Your task to perform on an android device: Turn off the flashlight Image 0: 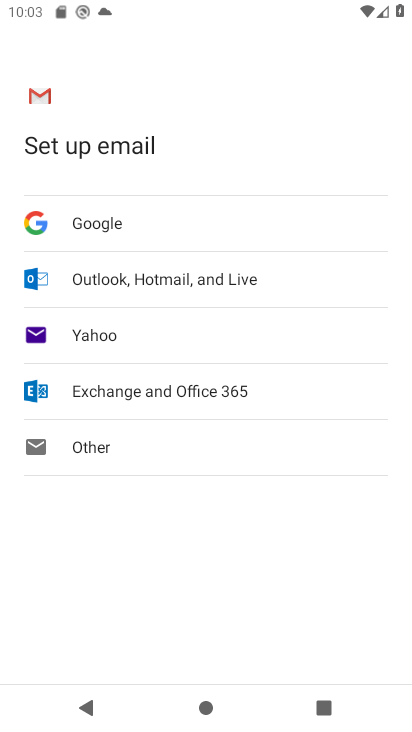
Step 0: press home button
Your task to perform on an android device: Turn off the flashlight Image 1: 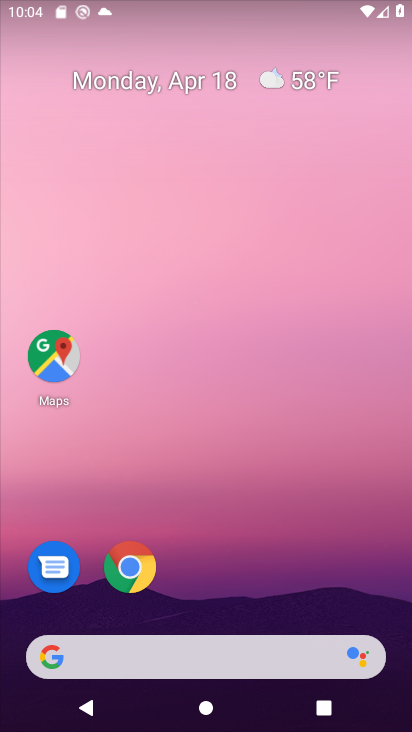
Step 1: click (347, 201)
Your task to perform on an android device: Turn off the flashlight Image 2: 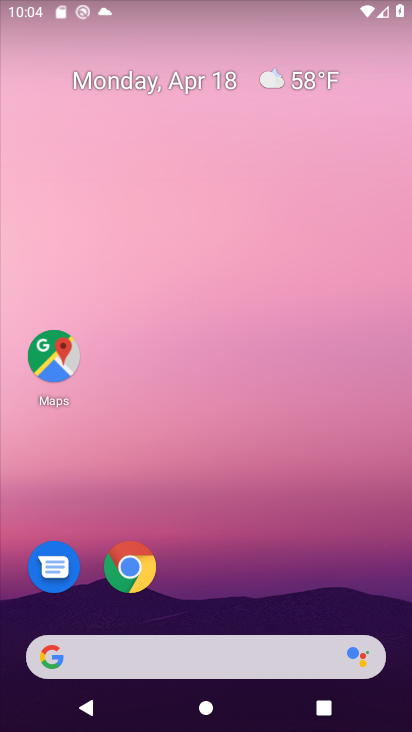
Step 2: drag from (184, 564) to (248, 113)
Your task to perform on an android device: Turn off the flashlight Image 3: 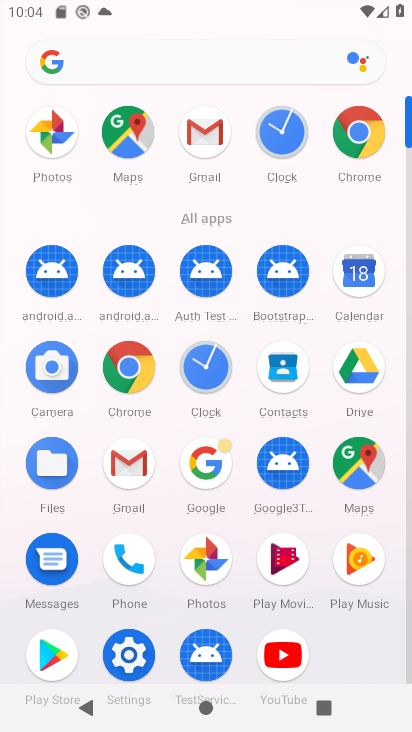
Step 3: click (272, 29)
Your task to perform on an android device: Turn off the flashlight Image 4: 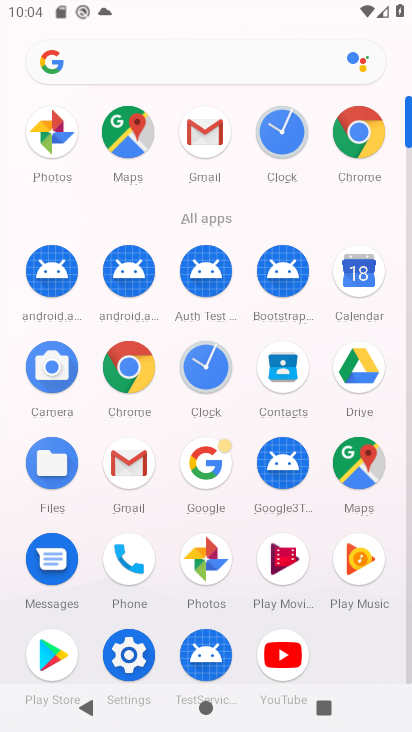
Step 4: click (229, 64)
Your task to perform on an android device: Turn off the flashlight Image 5: 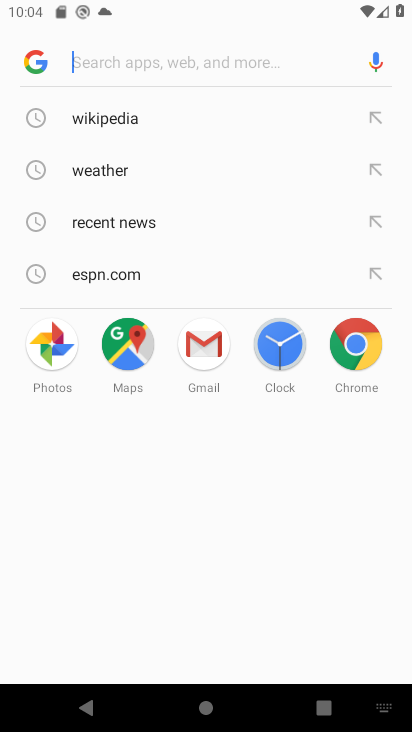
Step 5: click (220, 168)
Your task to perform on an android device: Turn off the flashlight Image 6: 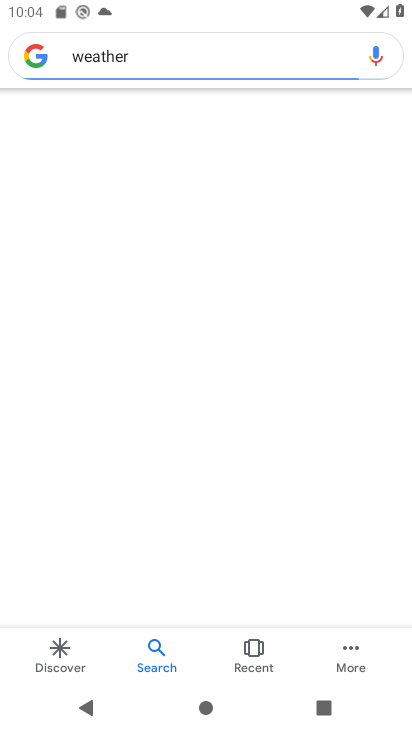
Step 6: drag from (213, 611) to (276, 167)
Your task to perform on an android device: Turn off the flashlight Image 7: 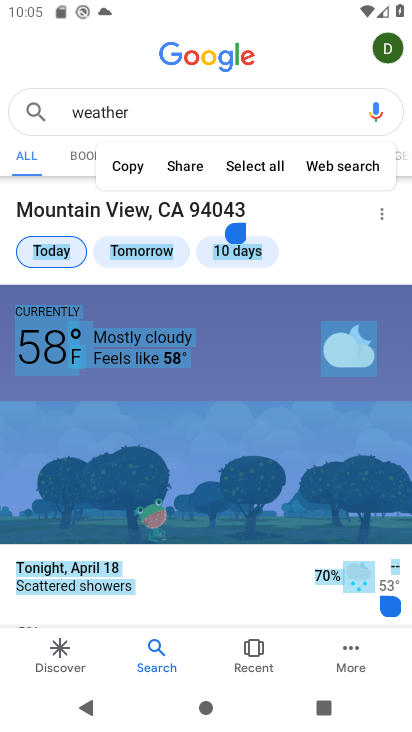
Step 7: click (177, 192)
Your task to perform on an android device: Turn off the flashlight Image 8: 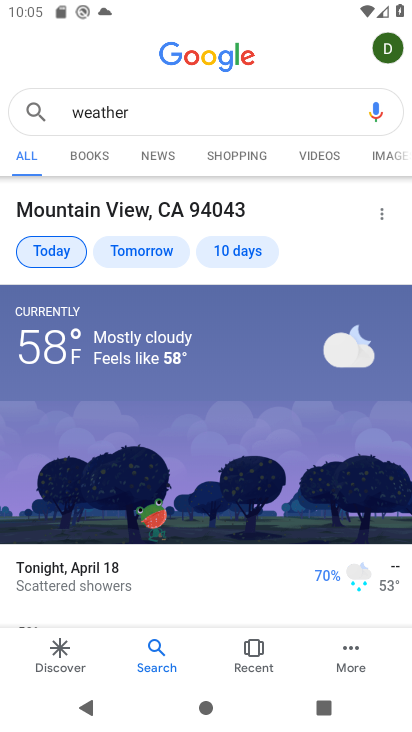
Step 8: type "flashlight"
Your task to perform on an android device: Turn off the flashlight Image 9: 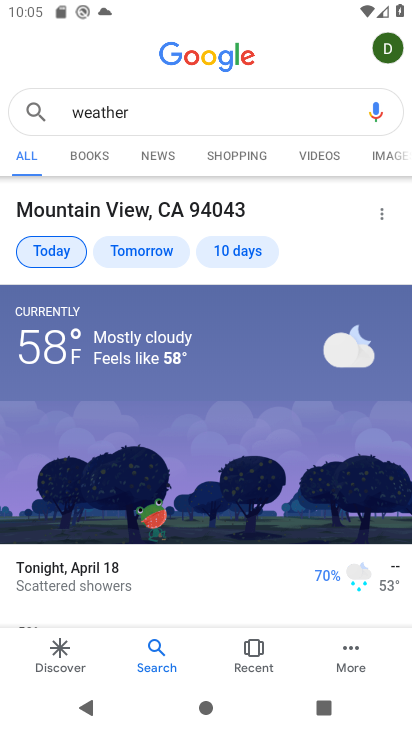
Step 9: click (119, 62)
Your task to perform on an android device: Turn off the flashlight Image 10: 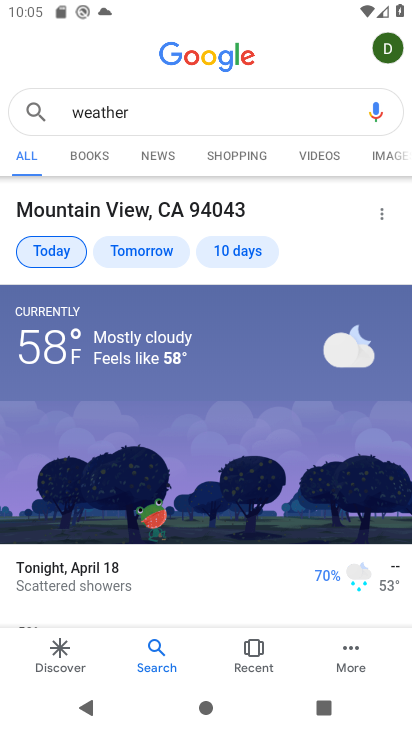
Step 10: press home button
Your task to perform on an android device: Turn off the flashlight Image 11: 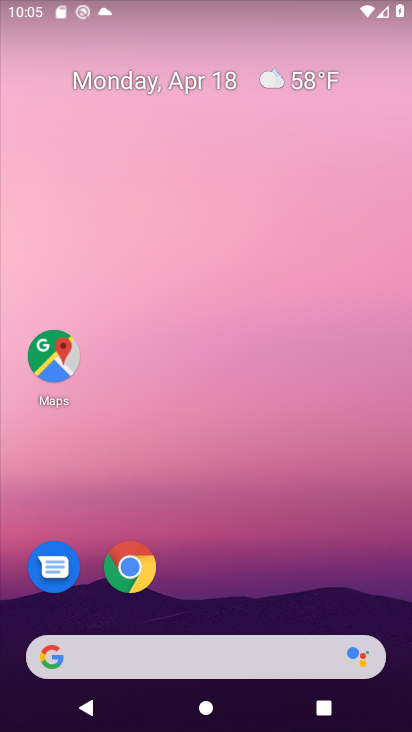
Step 11: drag from (225, 508) to (287, 2)
Your task to perform on an android device: Turn off the flashlight Image 12: 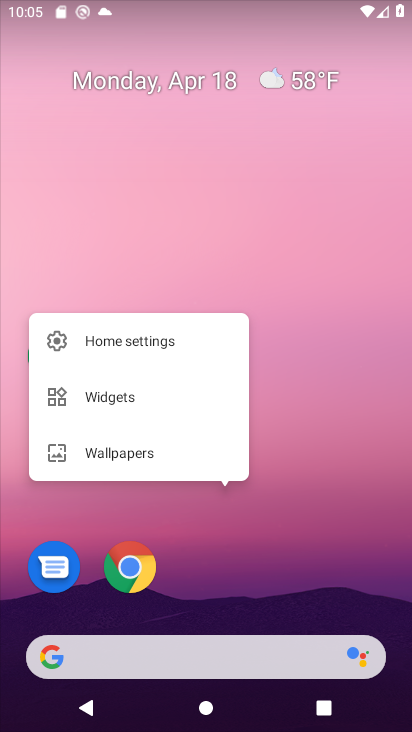
Step 12: click (199, 1)
Your task to perform on an android device: Turn off the flashlight Image 13: 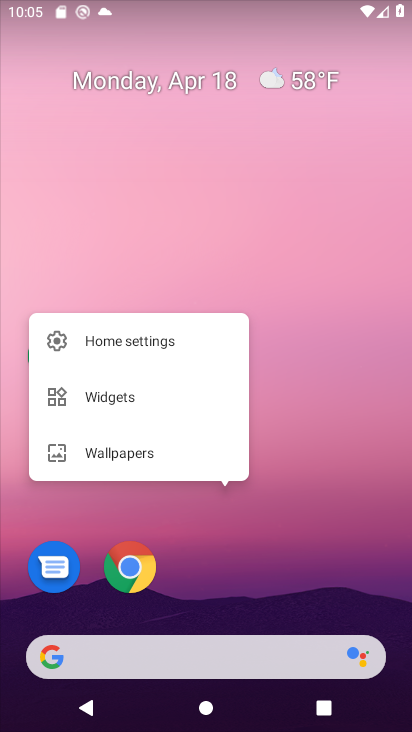
Step 13: click (262, 167)
Your task to perform on an android device: Turn off the flashlight Image 14: 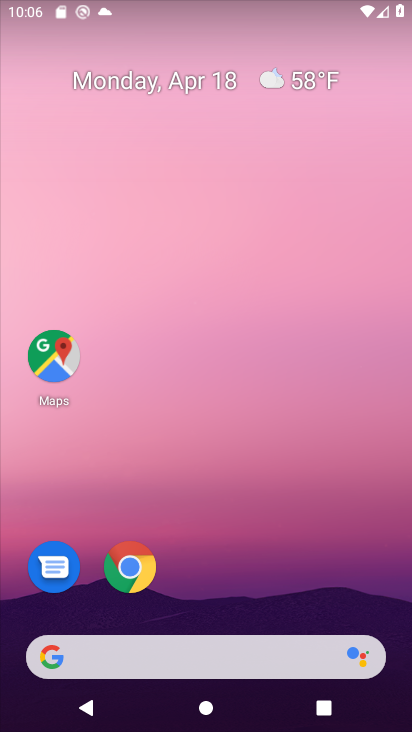
Step 14: drag from (200, 628) to (212, 1)
Your task to perform on an android device: Turn off the flashlight Image 15: 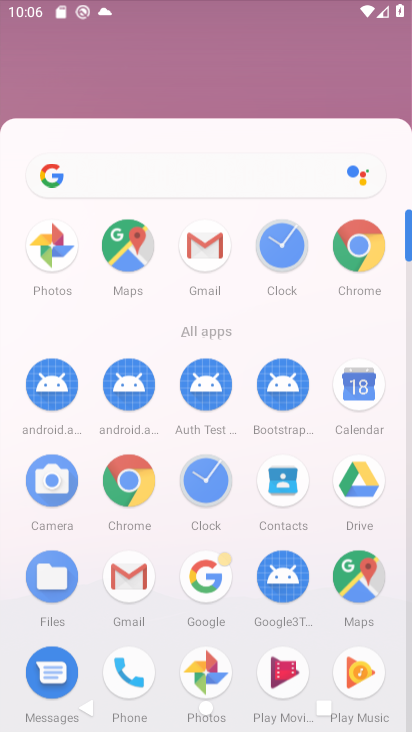
Step 15: drag from (199, 612) to (242, 84)
Your task to perform on an android device: Turn off the flashlight Image 16: 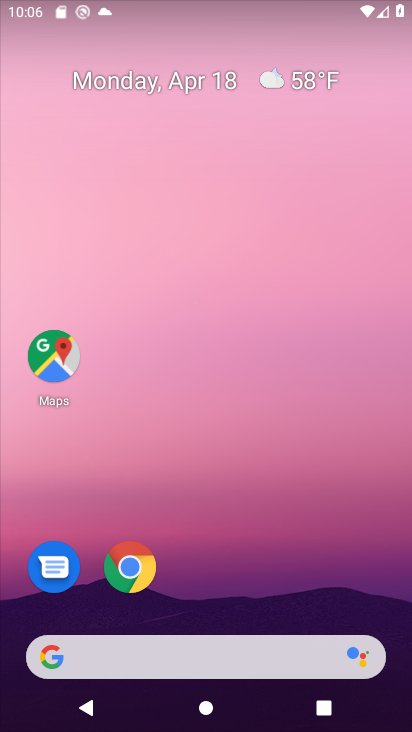
Step 16: drag from (208, 600) to (263, 74)
Your task to perform on an android device: Turn off the flashlight Image 17: 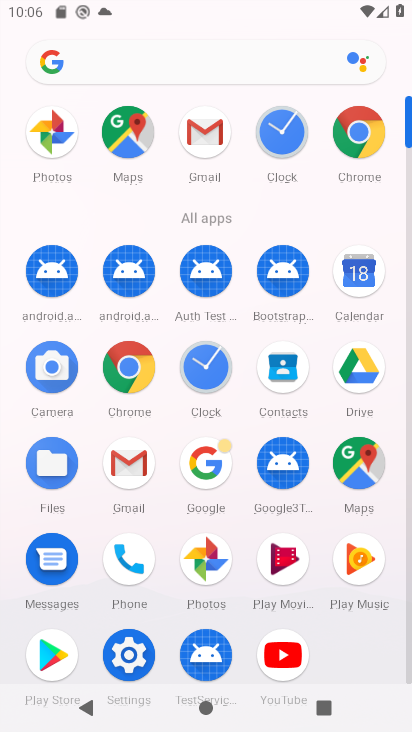
Step 17: drag from (251, 584) to (281, 195)
Your task to perform on an android device: Turn off the flashlight Image 18: 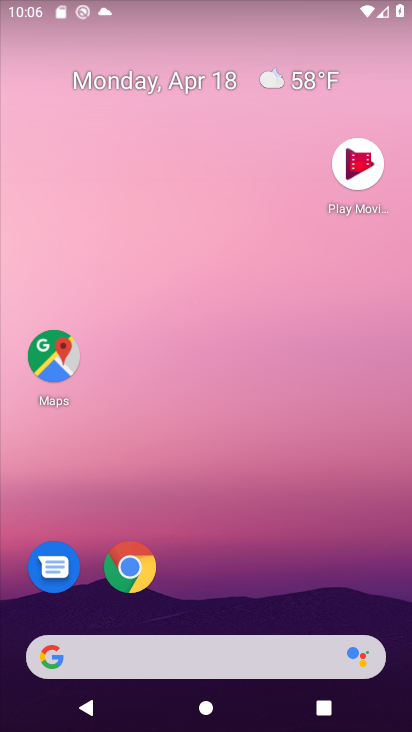
Step 18: drag from (256, 590) to (273, 172)
Your task to perform on an android device: Turn off the flashlight Image 19: 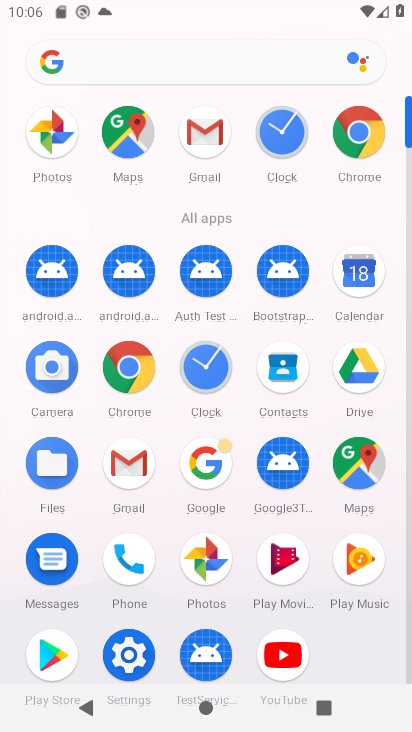
Step 19: drag from (241, 441) to (244, 163)
Your task to perform on an android device: Turn off the flashlight Image 20: 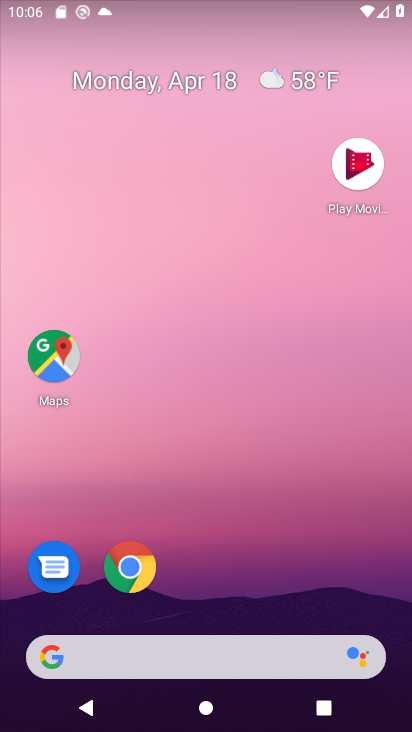
Step 20: drag from (195, 502) to (225, 194)
Your task to perform on an android device: Turn off the flashlight Image 21: 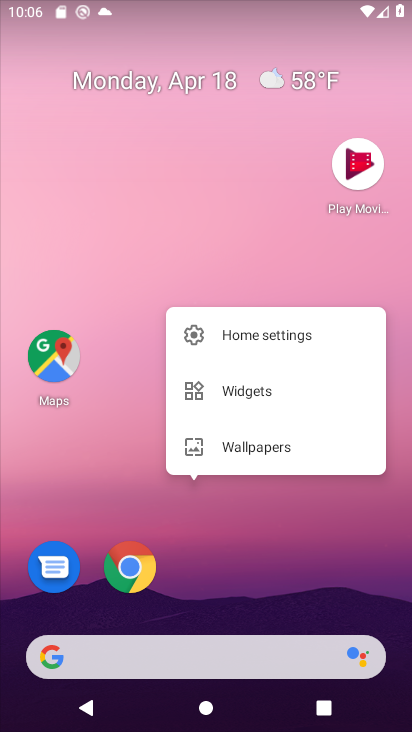
Step 21: drag from (172, 600) to (163, 112)
Your task to perform on an android device: Turn off the flashlight Image 22: 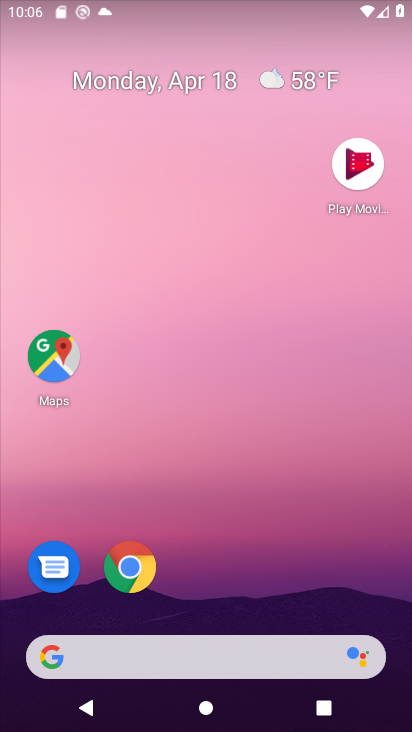
Step 22: drag from (186, 610) to (238, 109)
Your task to perform on an android device: Turn off the flashlight Image 23: 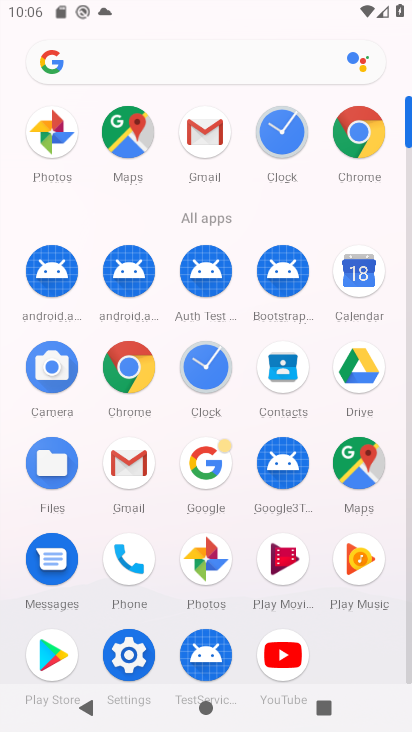
Step 23: click (247, 67)
Your task to perform on an android device: Turn off the flashlight Image 24: 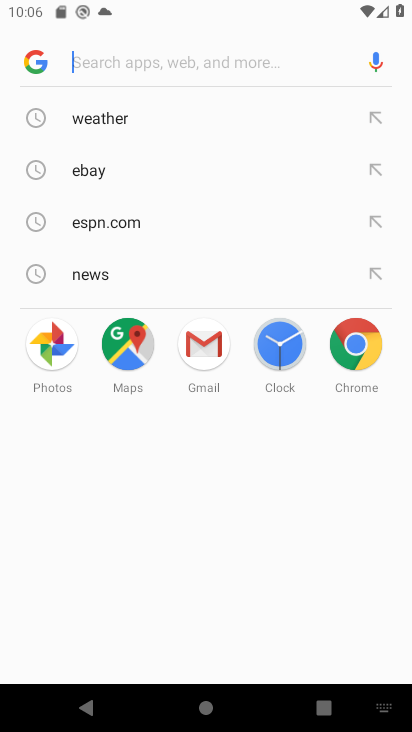
Step 24: click (293, 57)
Your task to perform on an android device: Turn off the flashlight Image 25: 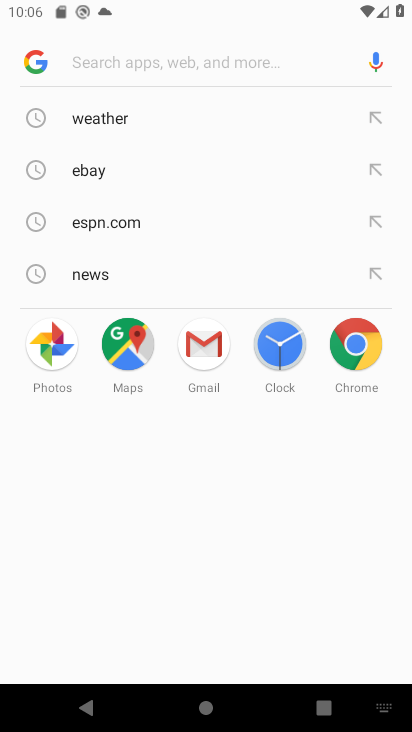
Step 25: click (131, 653)
Your task to perform on an android device: Turn off the flashlight Image 26: 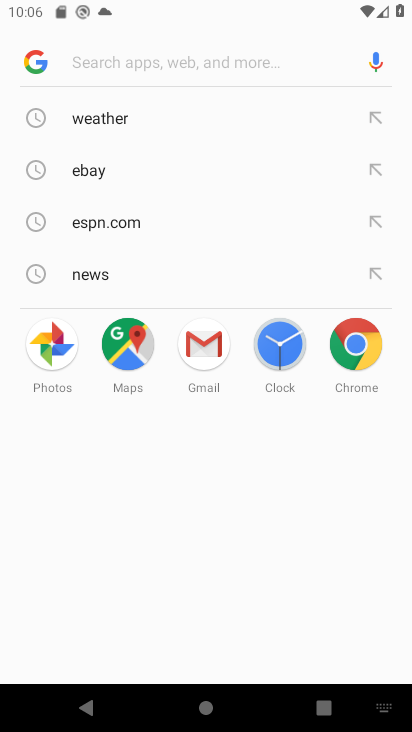
Step 26: click (92, 713)
Your task to perform on an android device: Turn off the flashlight Image 27: 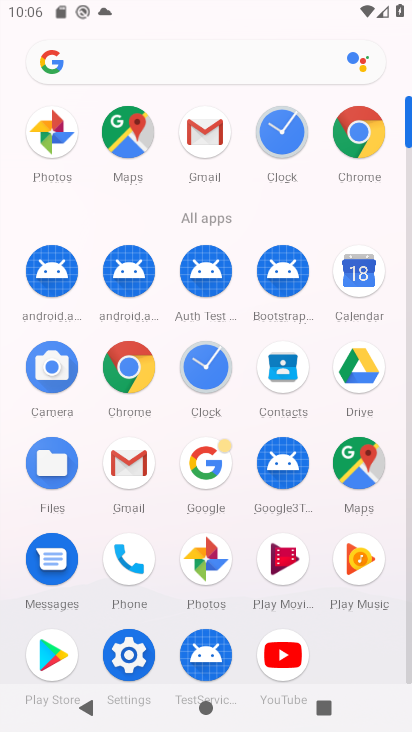
Step 27: press back button
Your task to perform on an android device: Turn off the flashlight Image 28: 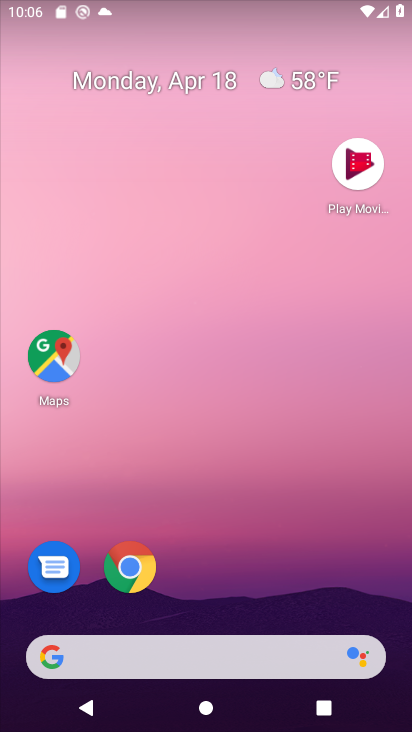
Step 28: drag from (167, 634) to (315, 60)
Your task to perform on an android device: Turn off the flashlight Image 29: 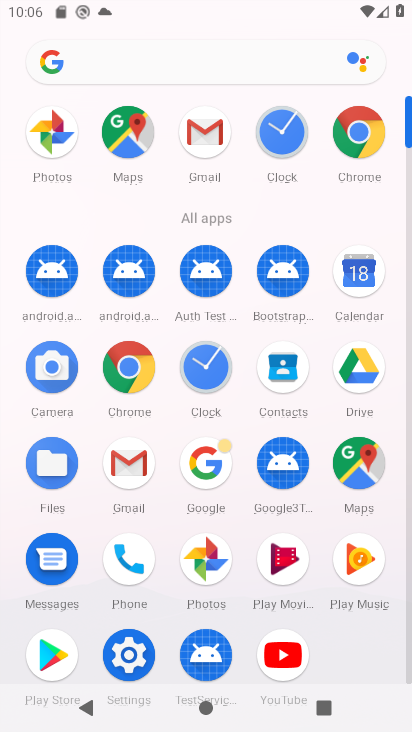
Step 29: drag from (186, 581) to (227, 1)
Your task to perform on an android device: Turn off the flashlight Image 30: 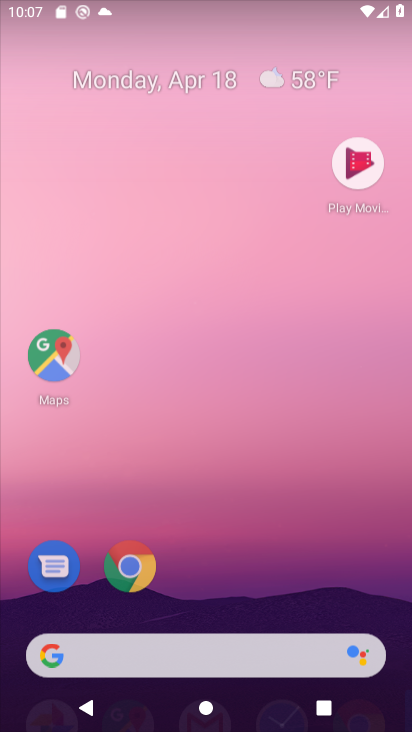
Step 30: drag from (293, 596) to (355, 32)
Your task to perform on an android device: Turn off the flashlight Image 31: 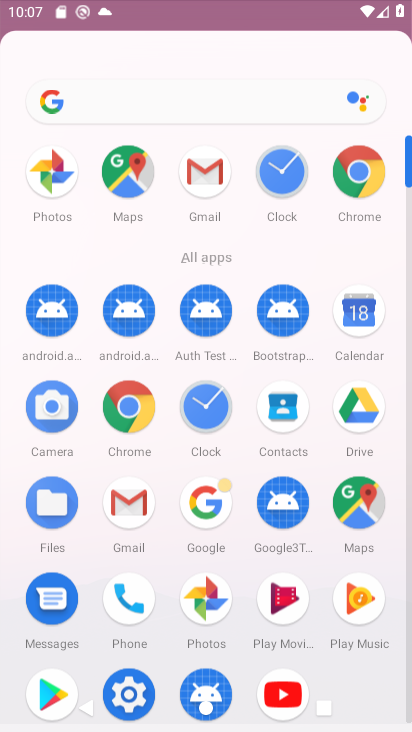
Step 31: click (128, 648)
Your task to perform on an android device: Turn off the flashlight Image 32: 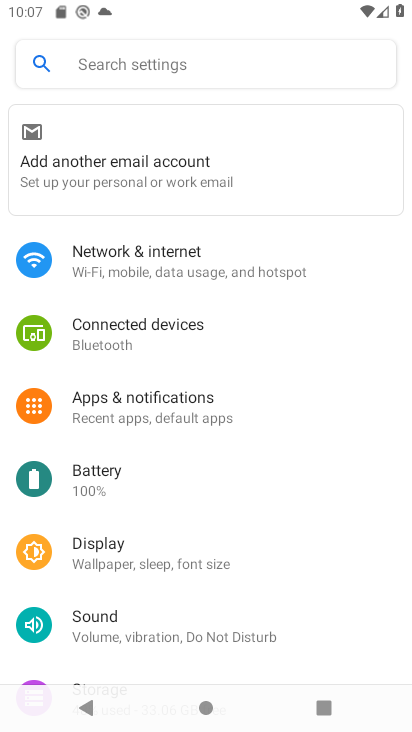
Step 32: click (147, 55)
Your task to perform on an android device: Turn off the flashlight Image 33: 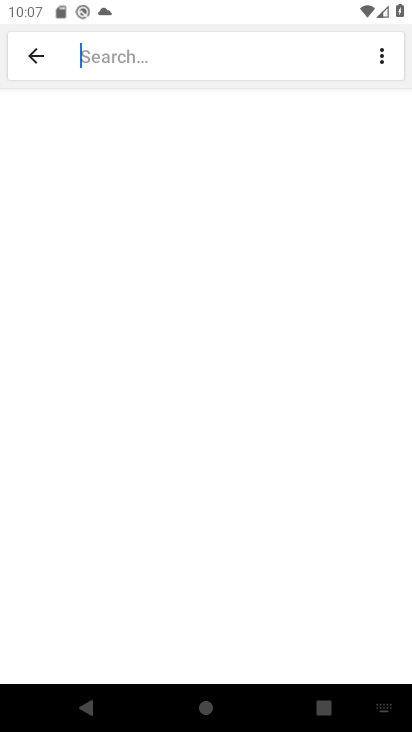
Step 33: type "flashlight"
Your task to perform on an android device: Turn off the flashlight Image 34: 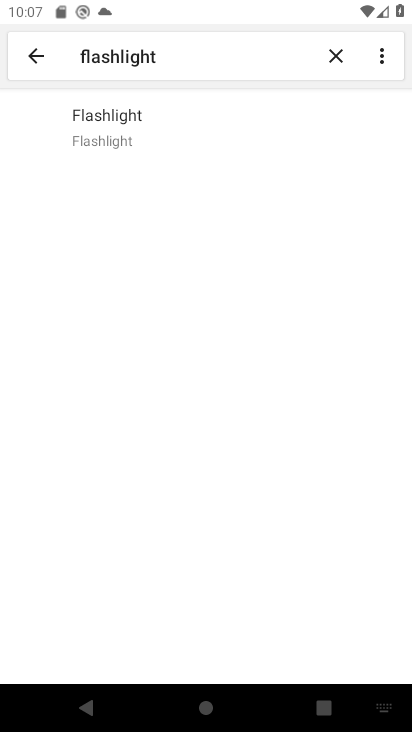
Step 34: click (167, 115)
Your task to perform on an android device: Turn off the flashlight Image 35: 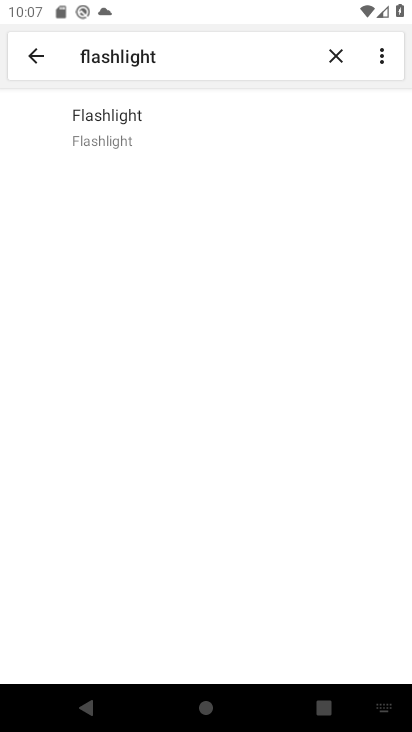
Step 35: task complete